Your task to perform on an android device: Open Google Chrome and open the bookmarks view Image 0: 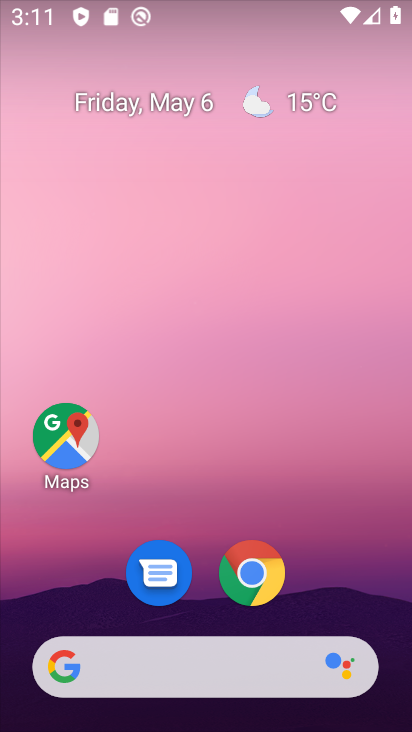
Step 0: drag from (155, 500) to (208, 192)
Your task to perform on an android device: Open Google Chrome and open the bookmarks view Image 1: 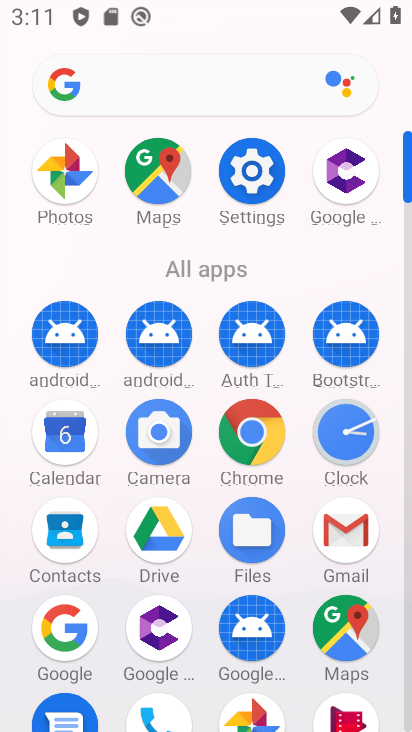
Step 1: drag from (217, 670) to (202, 284)
Your task to perform on an android device: Open Google Chrome and open the bookmarks view Image 2: 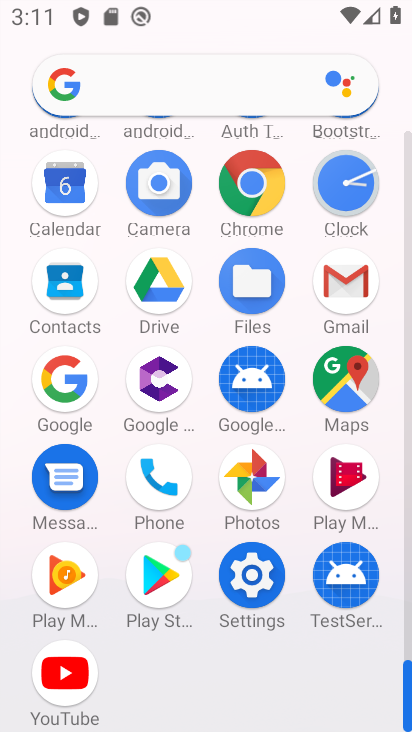
Step 2: click (74, 676)
Your task to perform on an android device: Open Google Chrome and open the bookmarks view Image 3: 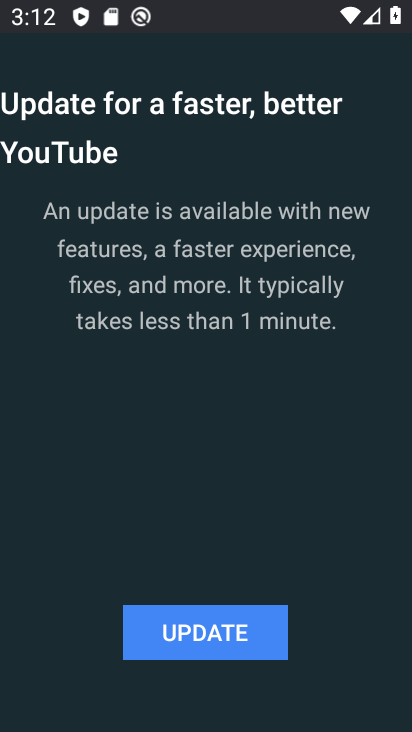
Step 3: click (278, 508)
Your task to perform on an android device: Open Google Chrome and open the bookmarks view Image 4: 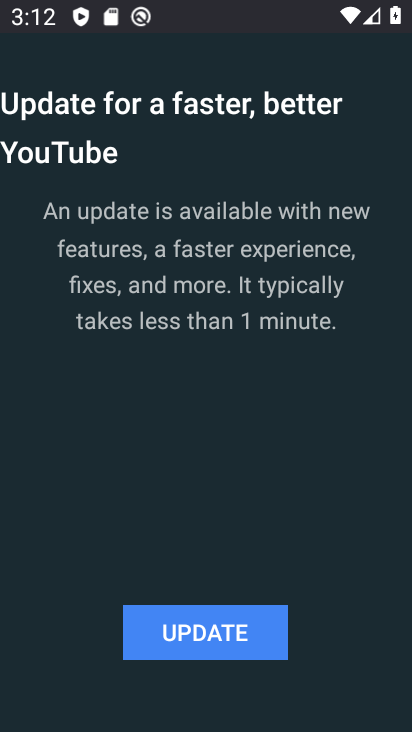
Step 4: press home button
Your task to perform on an android device: Open Google Chrome and open the bookmarks view Image 5: 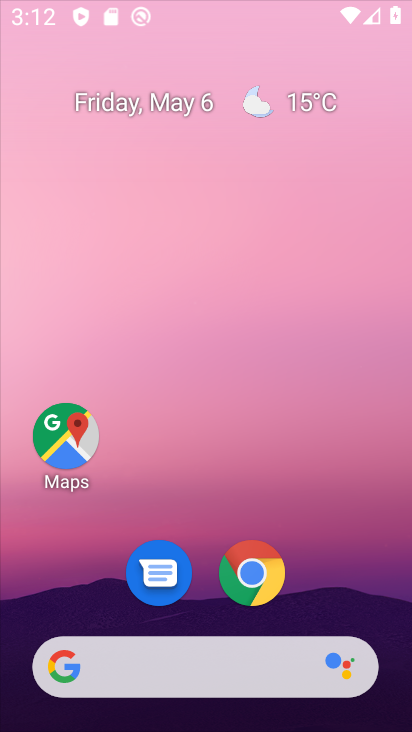
Step 5: drag from (183, 695) to (223, 313)
Your task to perform on an android device: Open Google Chrome and open the bookmarks view Image 6: 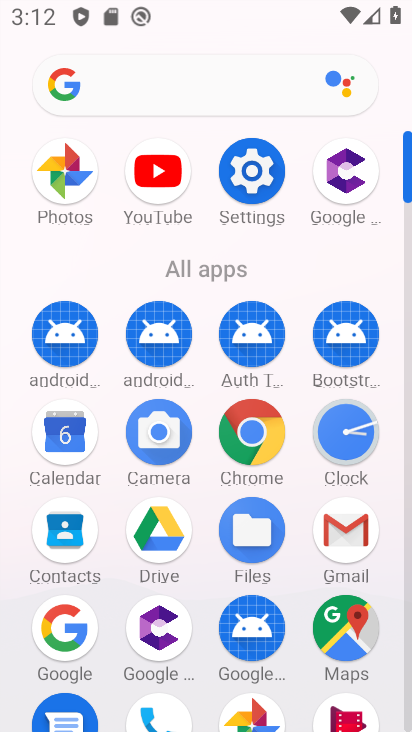
Step 6: click (250, 420)
Your task to perform on an android device: Open Google Chrome and open the bookmarks view Image 7: 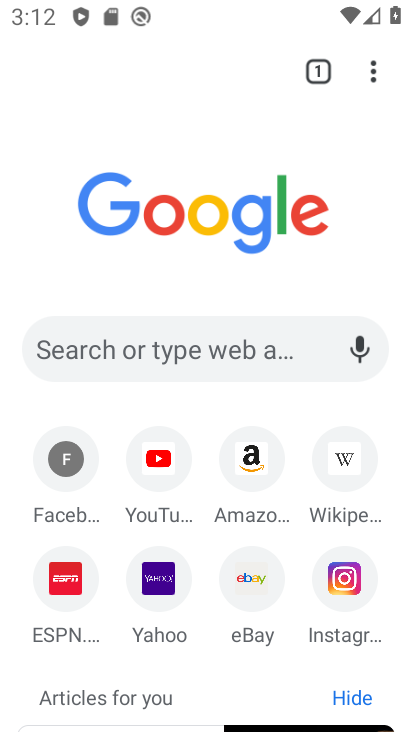
Step 7: click (371, 84)
Your task to perform on an android device: Open Google Chrome and open the bookmarks view Image 8: 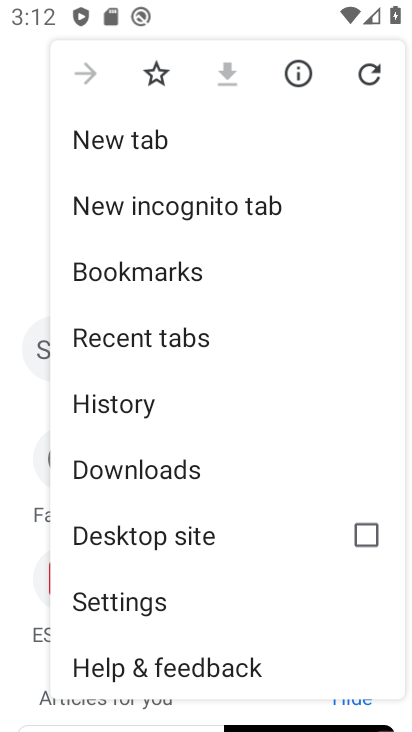
Step 8: click (198, 279)
Your task to perform on an android device: Open Google Chrome and open the bookmarks view Image 9: 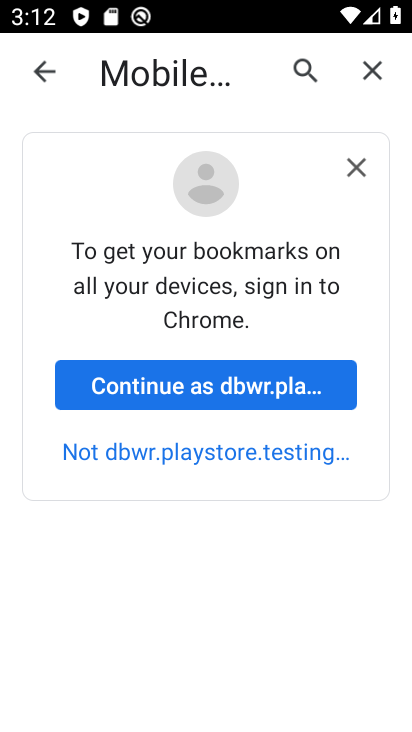
Step 9: task complete